Your task to perform on an android device: Open Chrome and go to the settings page Image 0: 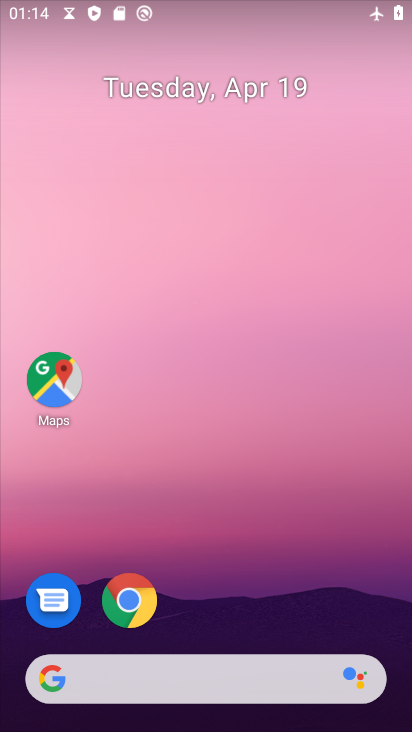
Step 0: drag from (21, 145) to (16, 523)
Your task to perform on an android device: Open Chrome and go to the settings page Image 1: 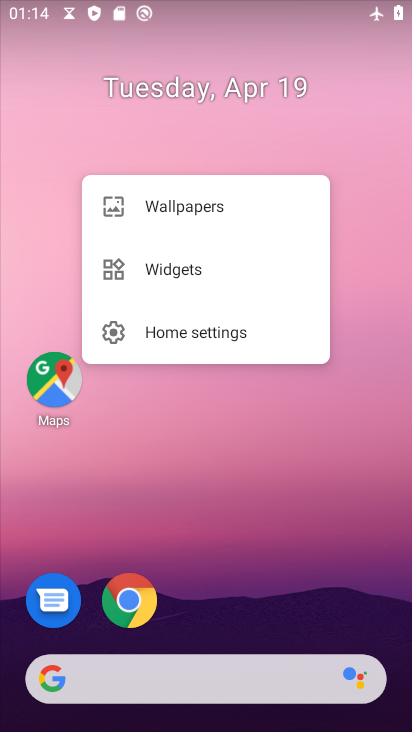
Step 1: drag from (188, 639) to (202, 47)
Your task to perform on an android device: Open Chrome and go to the settings page Image 2: 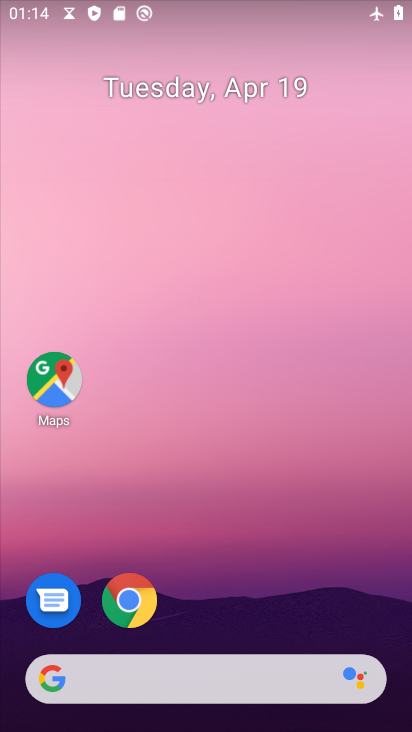
Step 2: drag from (171, 604) to (197, 62)
Your task to perform on an android device: Open Chrome and go to the settings page Image 3: 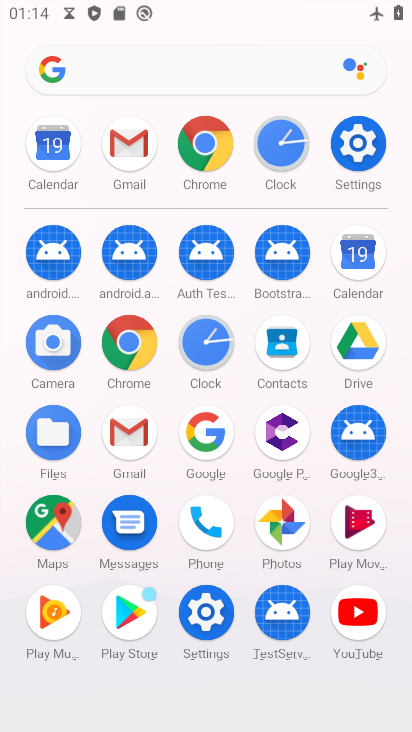
Step 3: click (218, 161)
Your task to perform on an android device: Open Chrome and go to the settings page Image 4: 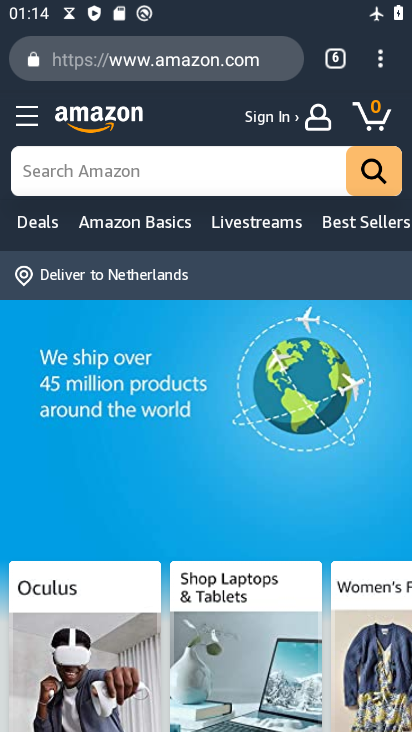
Step 4: click (383, 73)
Your task to perform on an android device: Open Chrome and go to the settings page Image 5: 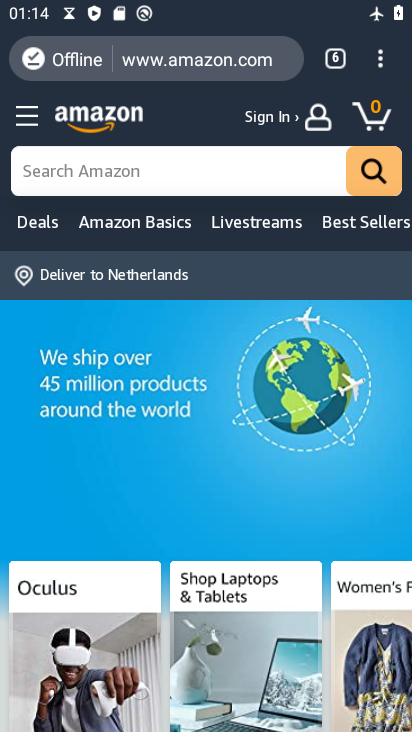
Step 5: task complete